Your task to perform on an android device: Open Yahoo.com Image 0: 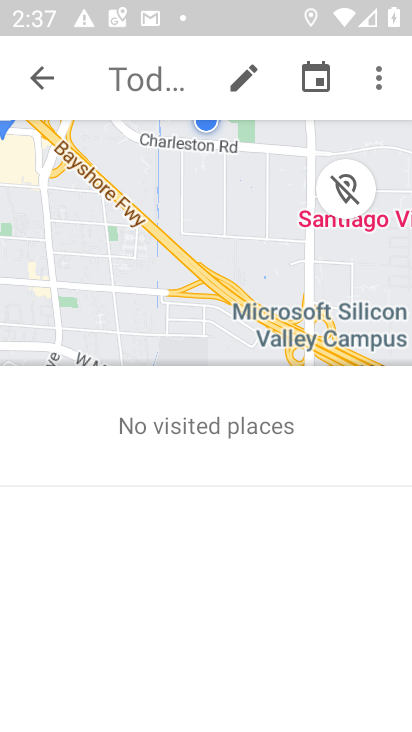
Step 0: press home button
Your task to perform on an android device: Open Yahoo.com Image 1: 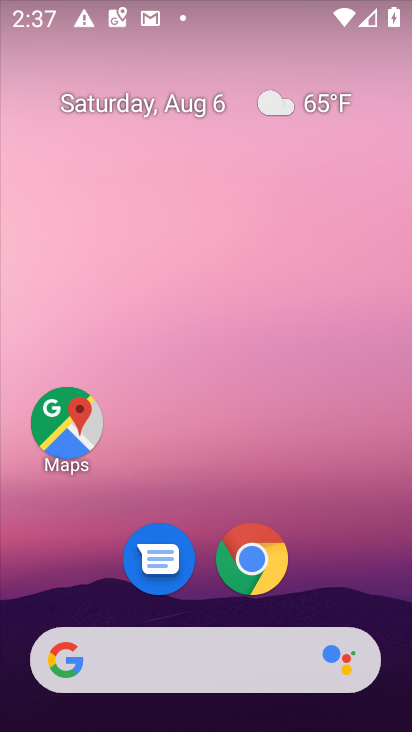
Step 1: drag from (232, 542) to (179, 542)
Your task to perform on an android device: Open Yahoo.com Image 2: 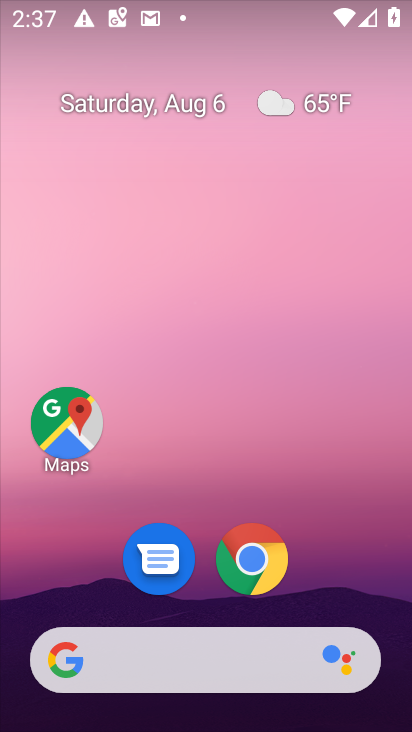
Step 2: click (227, 540)
Your task to perform on an android device: Open Yahoo.com Image 3: 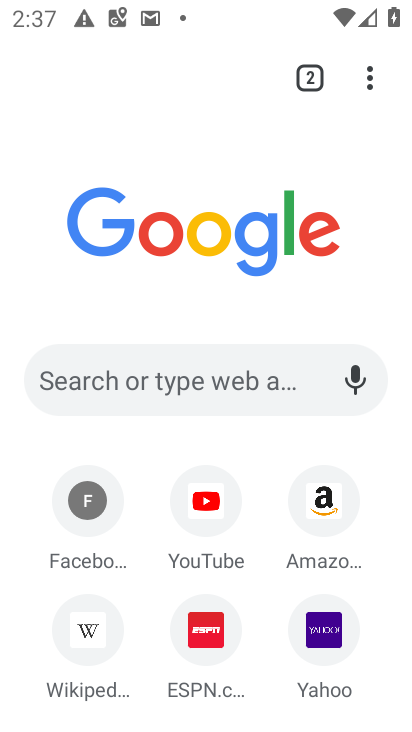
Step 3: click (312, 623)
Your task to perform on an android device: Open Yahoo.com Image 4: 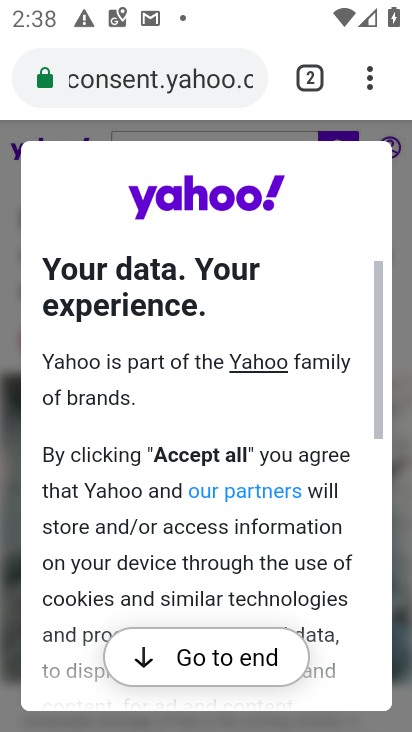
Step 4: task complete